Your task to perform on an android device: Open sound settings Image 0: 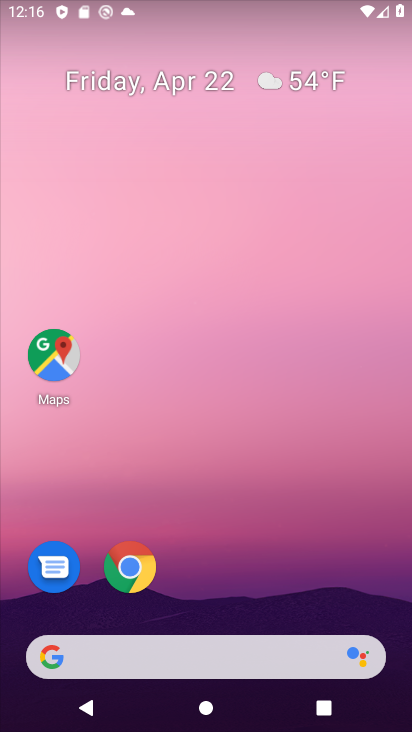
Step 0: drag from (298, 437) to (352, 78)
Your task to perform on an android device: Open sound settings Image 1: 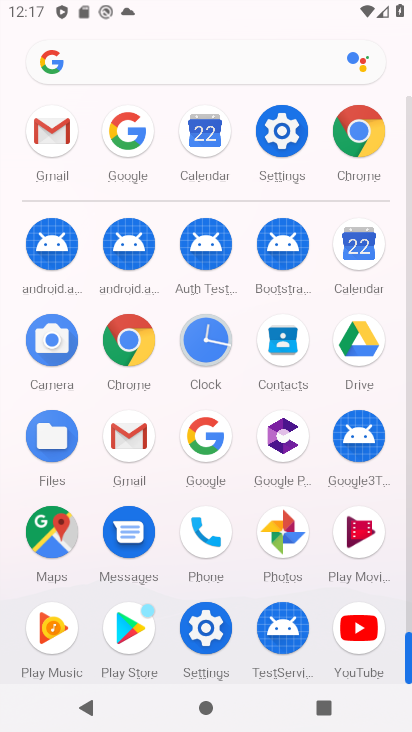
Step 1: click (297, 141)
Your task to perform on an android device: Open sound settings Image 2: 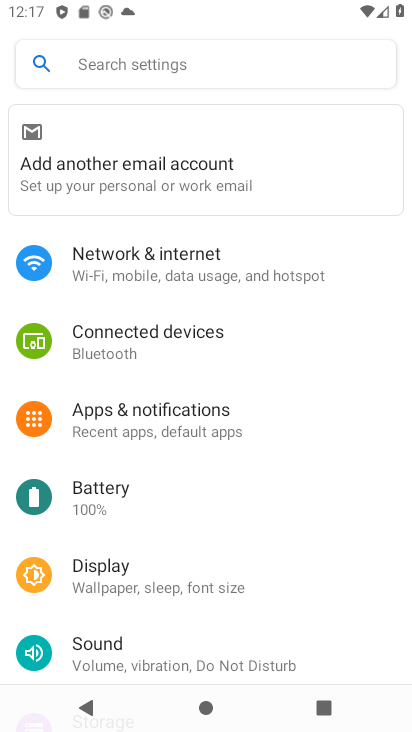
Step 2: click (194, 636)
Your task to perform on an android device: Open sound settings Image 3: 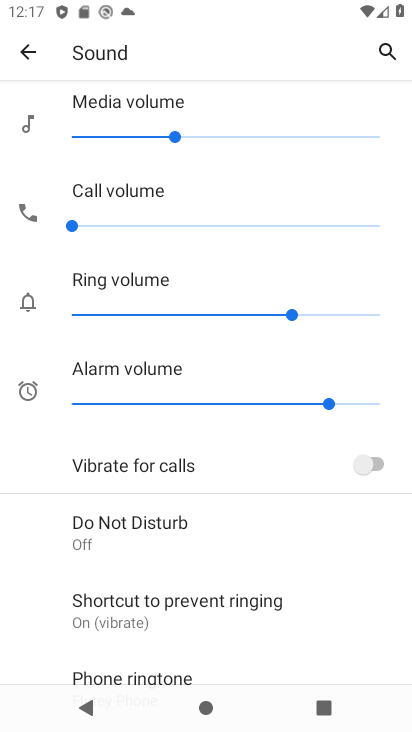
Step 3: task complete